Your task to perform on an android device: Set the phone to "Do not disturb". Image 0: 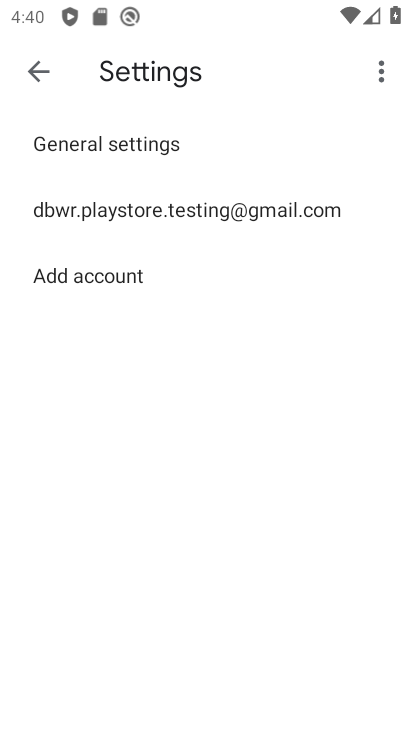
Step 0: press home button
Your task to perform on an android device: Set the phone to "Do not disturb". Image 1: 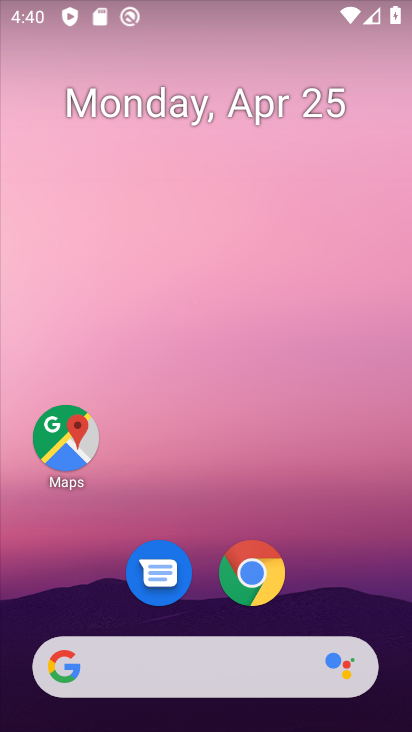
Step 1: drag from (367, 608) to (400, 57)
Your task to perform on an android device: Set the phone to "Do not disturb". Image 2: 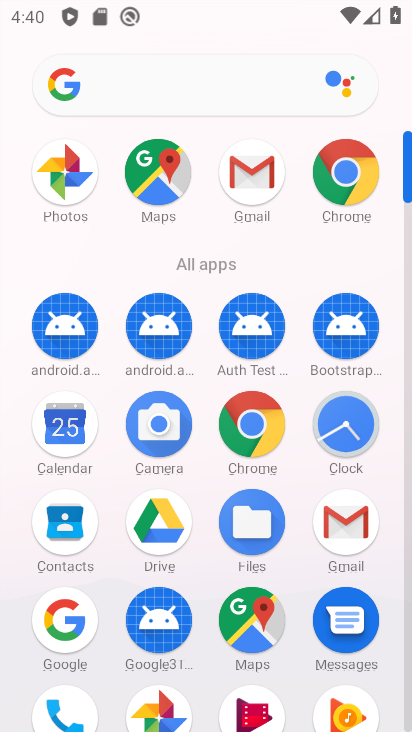
Step 2: drag from (409, 524) to (402, 420)
Your task to perform on an android device: Set the phone to "Do not disturb". Image 3: 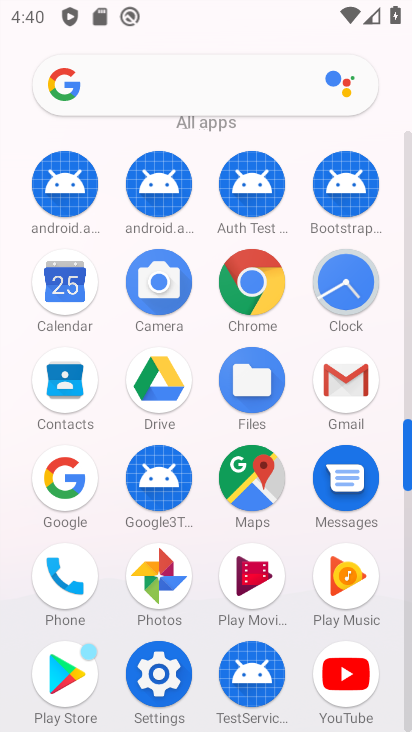
Step 3: click (165, 674)
Your task to perform on an android device: Set the phone to "Do not disturb". Image 4: 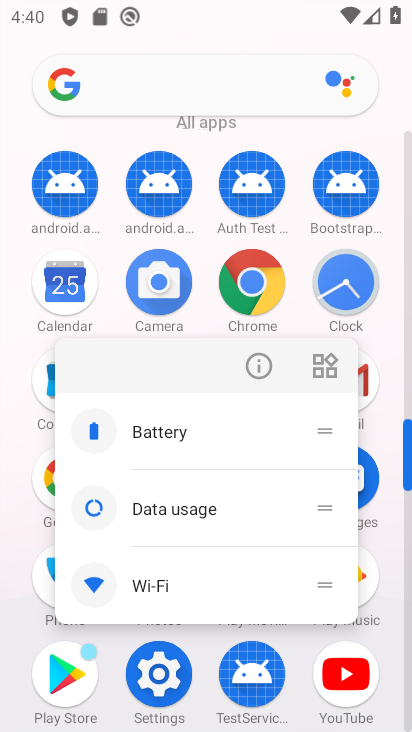
Step 4: click (150, 675)
Your task to perform on an android device: Set the phone to "Do not disturb". Image 5: 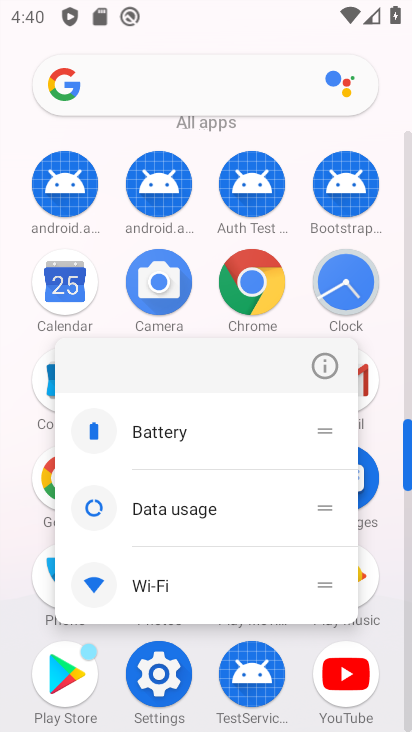
Step 5: click (137, 663)
Your task to perform on an android device: Set the phone to "Do not disturb". Image 6: 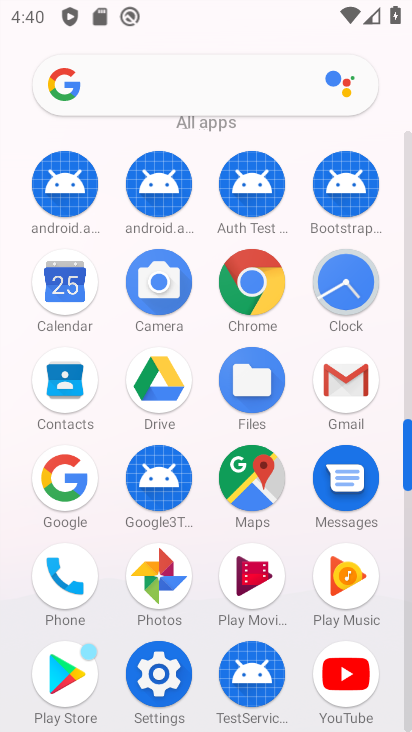
Step 6: click (161, 680)
Your task to perform on an android device: Set the phone to "Do not disturb". Image 7: 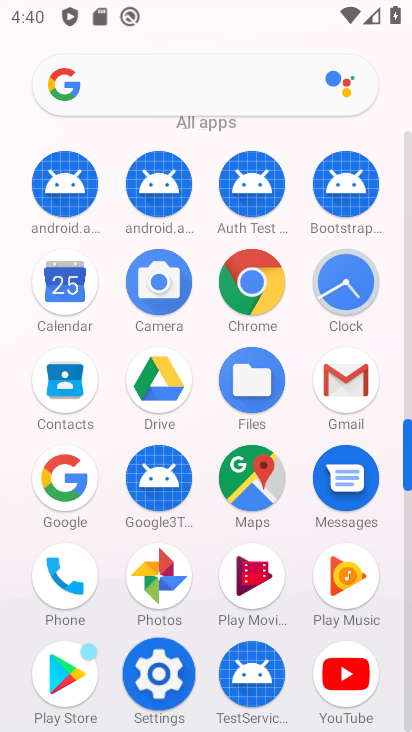
Step 7: click (163, 677)
Your task to perform on an android device: Set the phone to "Do not disturb". Image 8: 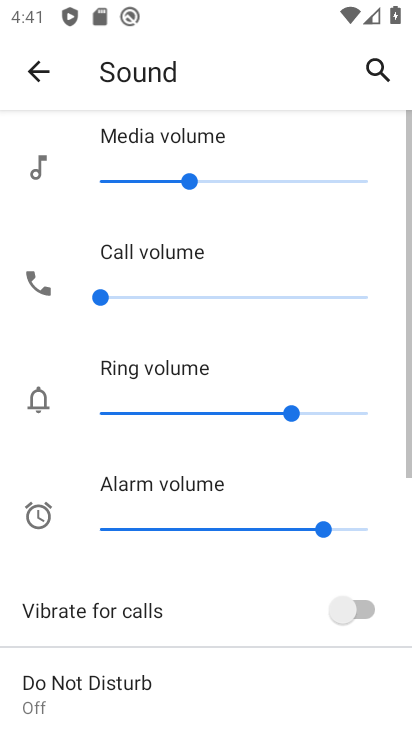
Step 8: drag from (309, 565) to (305, 290)
Your task to perform on an android device: Set the phone to "Do not disturb". Image 9: 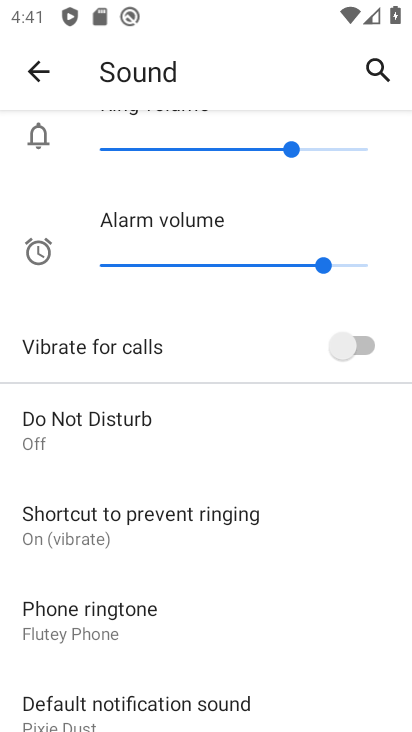
Step 9: click (65, 423)
Your task to perform on an android device: Set the phone to "Do not disturb". Image 10: 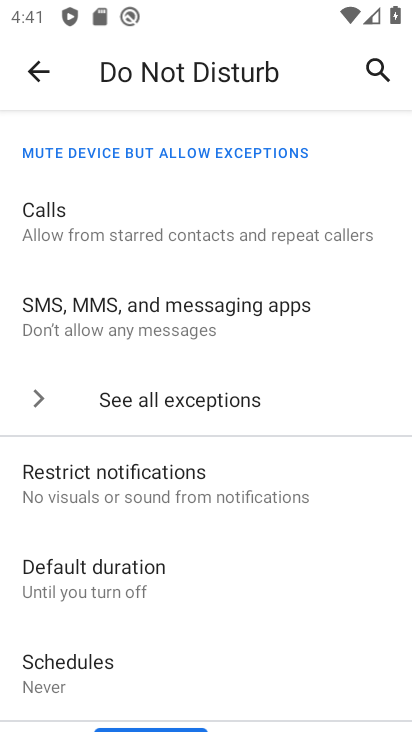
Step 10: drag from (221, 632) to (229, 208)
Your task to perform on an android device: Set the phone to "Do not disturb". Image 11: 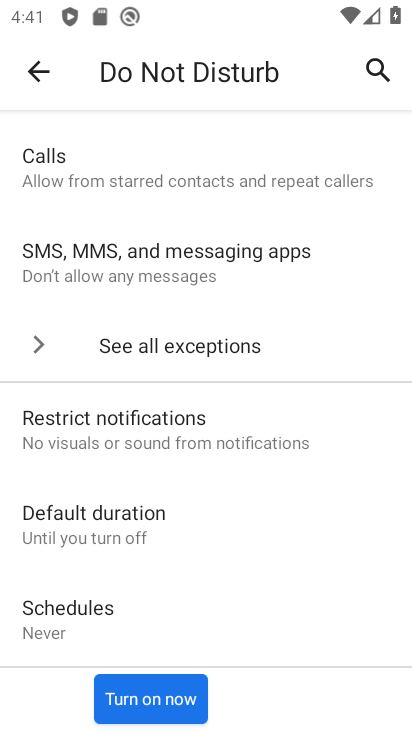
Step 11: click (143, 698)
Your task to perform on an android device: Set the phone to "Do not disturb". Image 12: 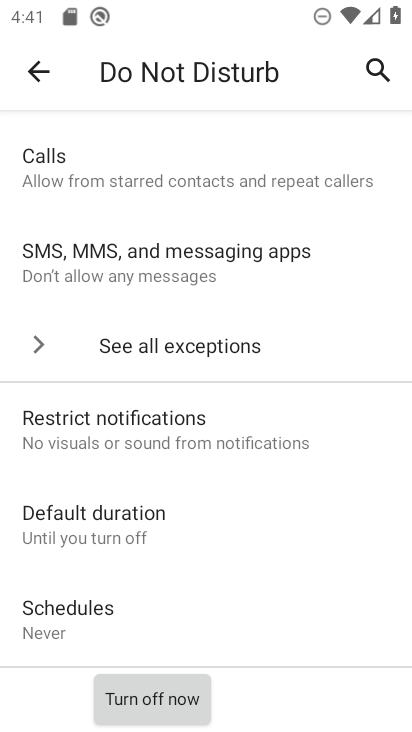
Step 12: task complete